Your task to perform on an android device: toggle notifications settings in the gmail app Image 0: 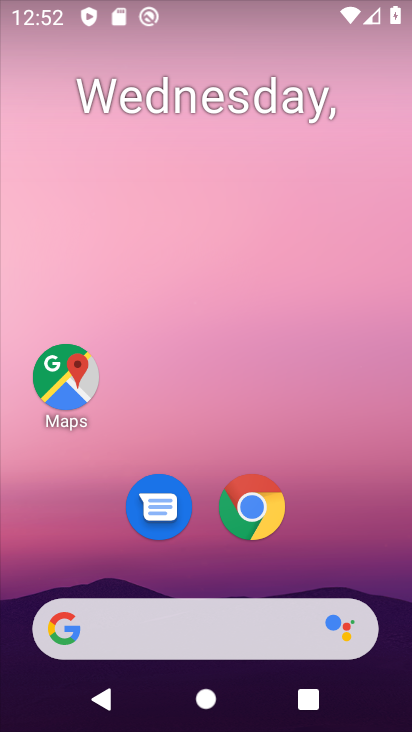
Step 0: press home button
Your task to perform on an android device: toggle notifications settings in the gmail app Image 1: 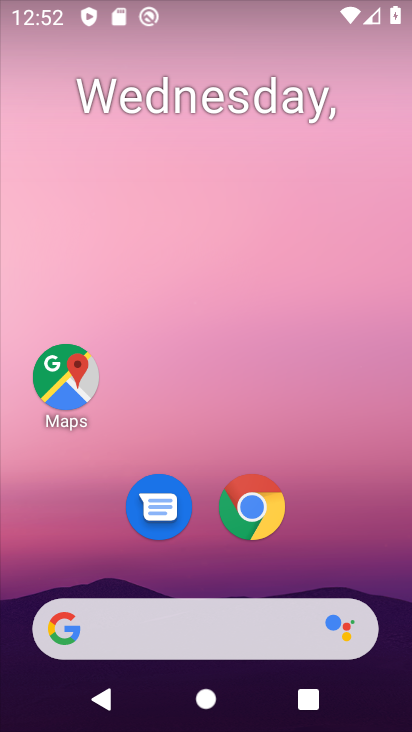
Step 1: drag from (162, 654) to (295, 155)
Your task to perform on an android device: toggle notifications settings in the gmail app Image 2: 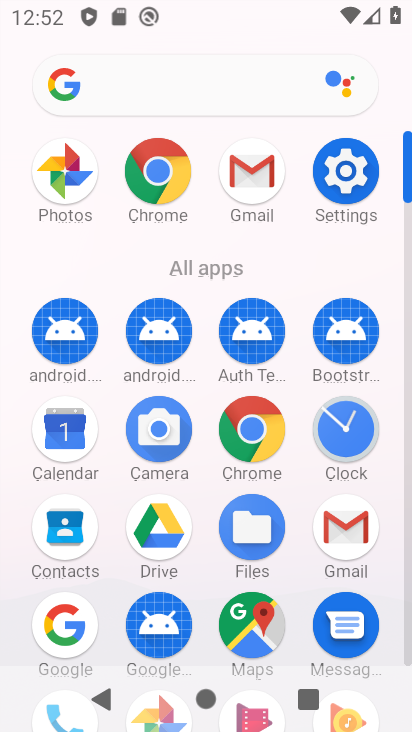
Step 2: click (252, 179)
Your task to perform on an android device: toggle notifications settings in the gmail app Image 3: 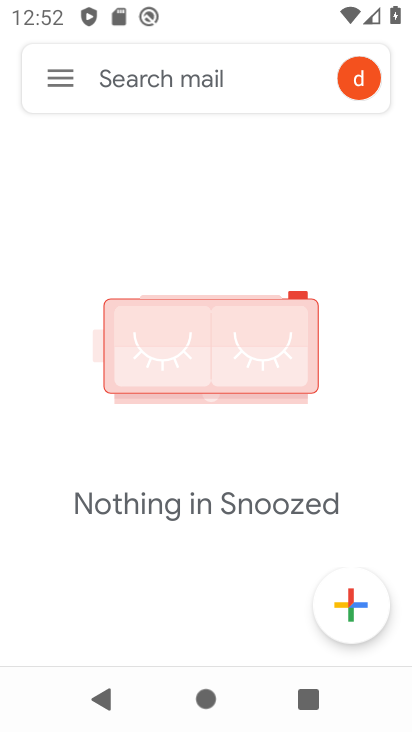
Step 3: click (61, 81)
Your task to perform on an android device: toggle notifications settings in the gmail app Image 4: 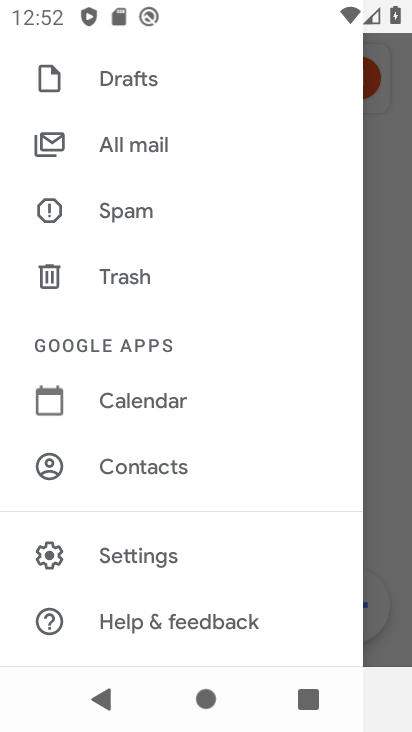
Step 4: click (121, 556)
Your task to perform on an android device: toggle notifications settings in the gmail app Image 5: 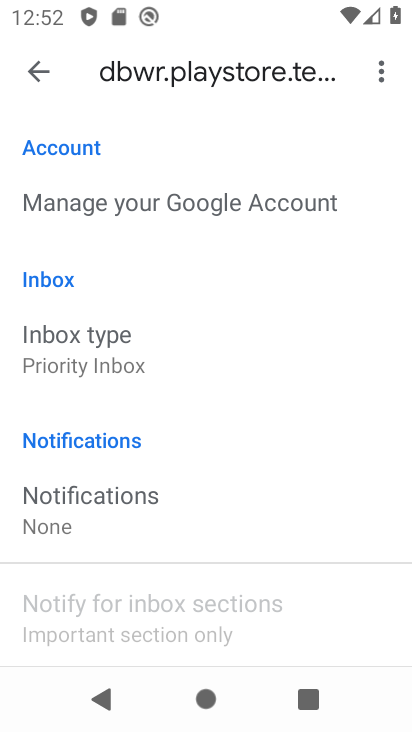
Step 5: click (125, 518)
Your task to perform on an android device: toggle notifications settings in the gmail app Image 6: 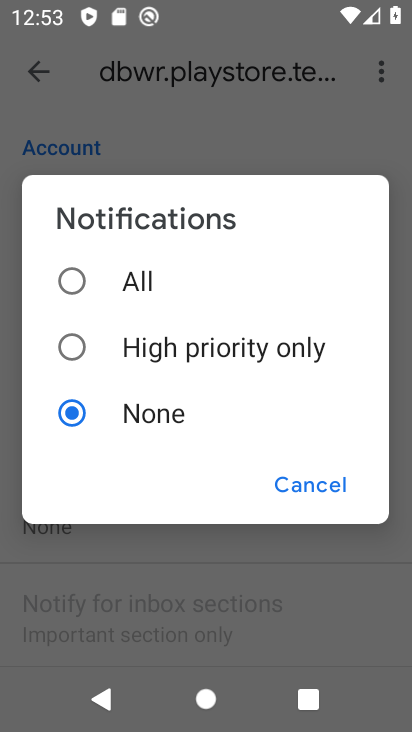
Step 6: click (65, 281)
Your task to perform on an android device: toggle notifications settings in the gmail app Image 7: 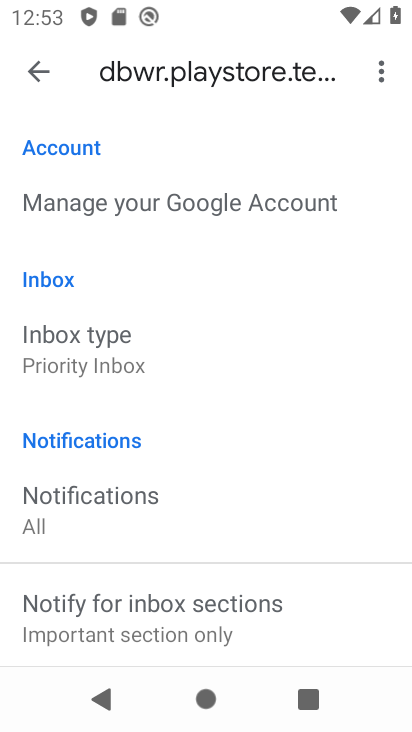
Step 7: task complete